Your task to perform on an android device: Check the weather Image 0: 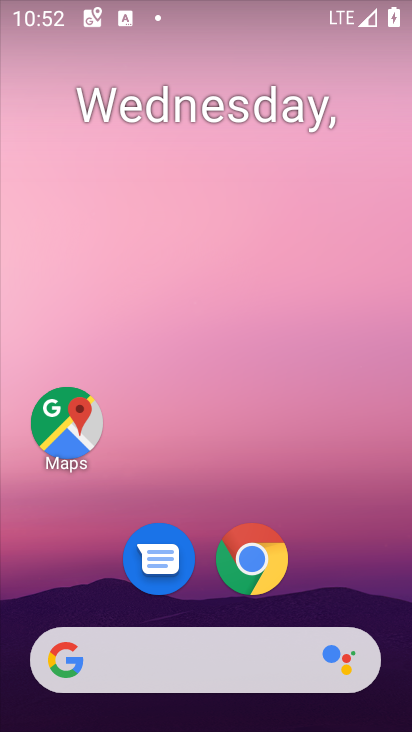
Step 0: drag from (201, 571) to (209, 0)
Your task to perform on an android device: Check the weather Image 1: 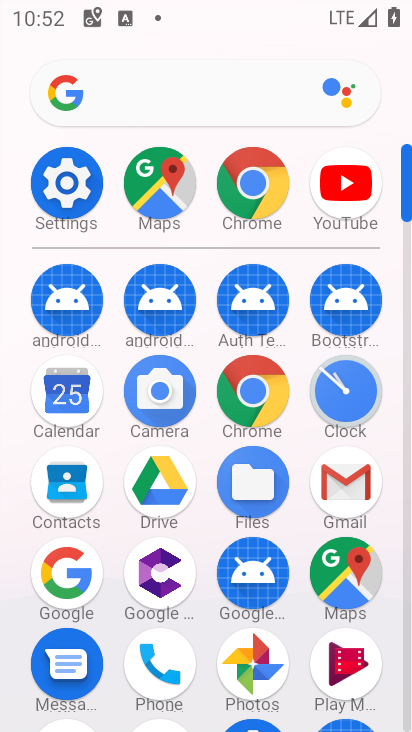
Step 1: drag from (177, 504) to (204, 259)
Your task to perform on an android device: Check the weather Image 2: 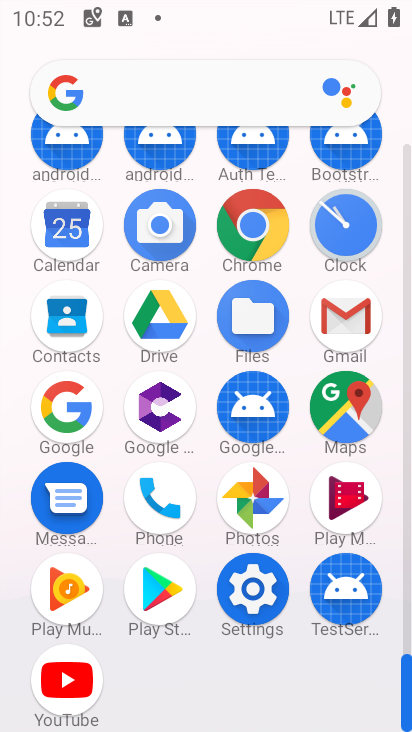
Step 2: click (72, 423)
Your task to perform on an android device: Check the weather Image 3: 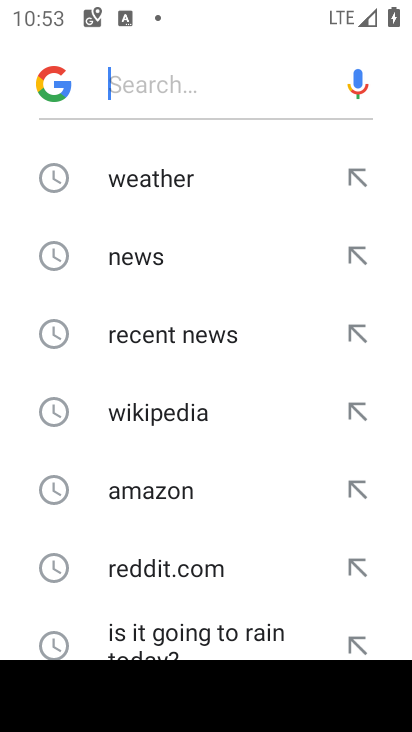
Step 3: click (193, 184)
Your task to perform on an android device: Check the weather Image 4: 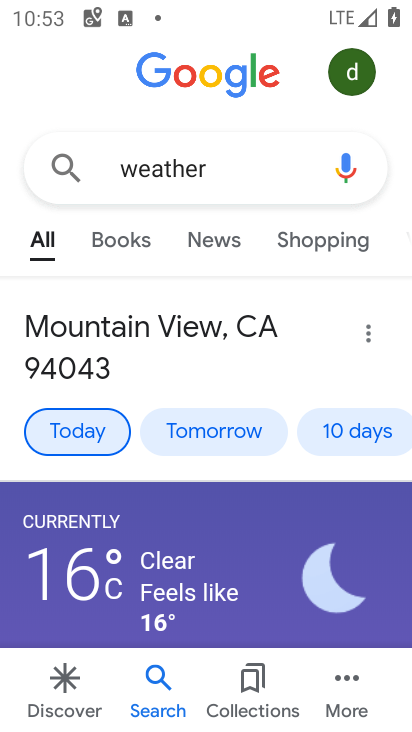
Step 4: task complete